Your task to perform on an android device: Is it going to rain tomorrow? Image 0: 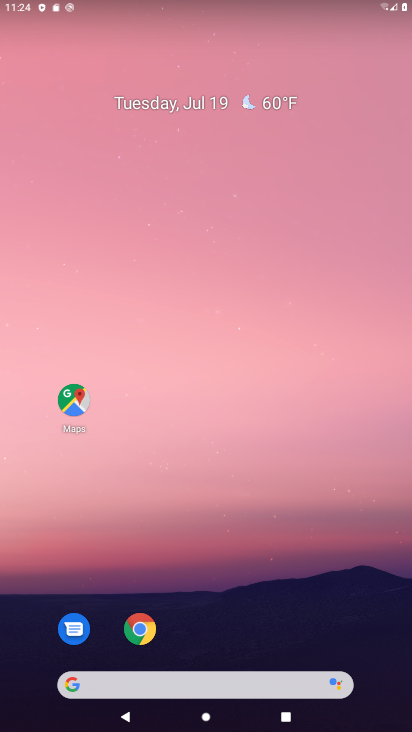
Step 0: click (168, 682)
Your task to perform on an android device: Is it going to rain tomorrow? Image 1: 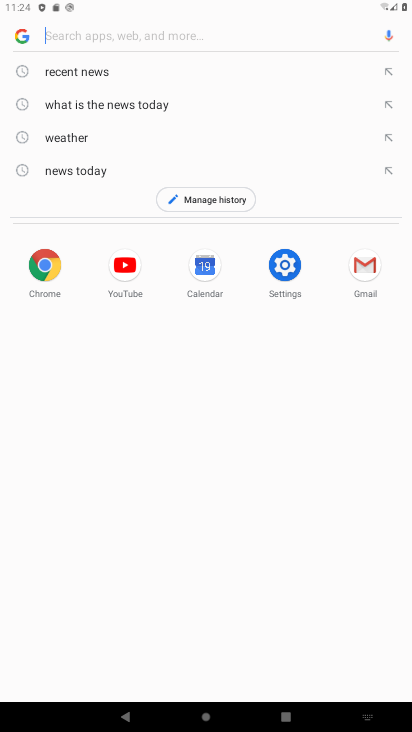
Step 1: type "is it going to rain tomorrow"
Your task to perform on an android device: Is it going to rain tomorrow? Image 2: 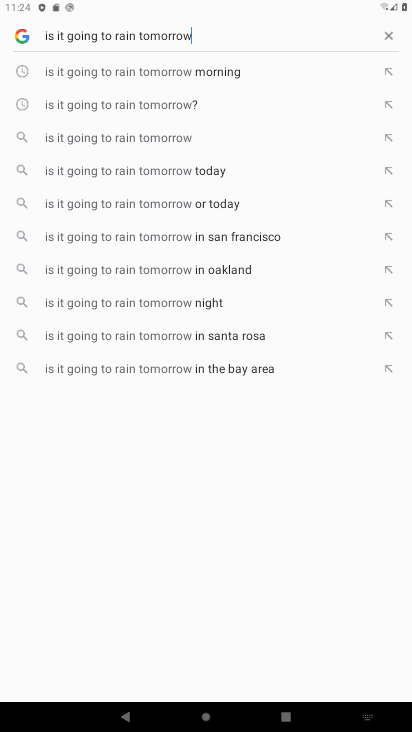
Step 2: click (210, 106)
Your task to perform on an android device: Is it going to rain tomorrow? Image 3: 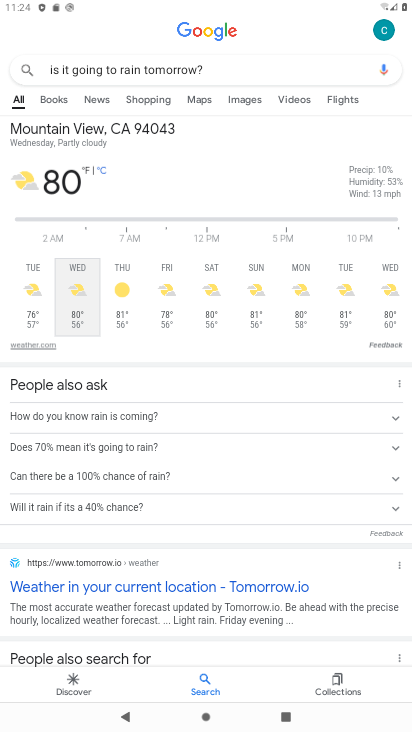
Step 3: task complete